Your task to perform on an android device: Search for sushi restaurants on Maps Image 0: 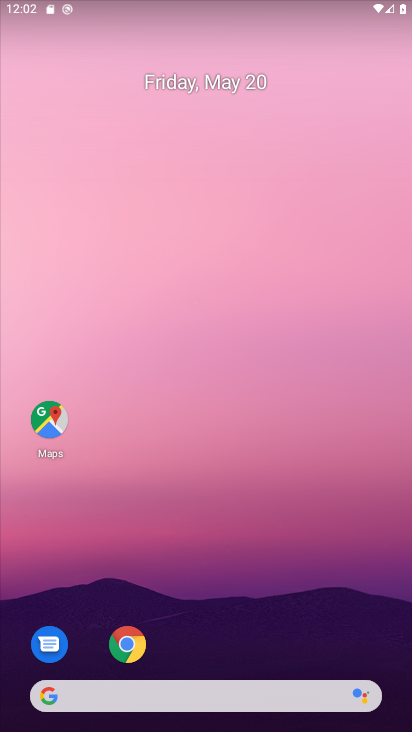
Step 0: click (45, 398)
Your task to perform on an android device: Search for sushi restaurants on Maps Image 1: 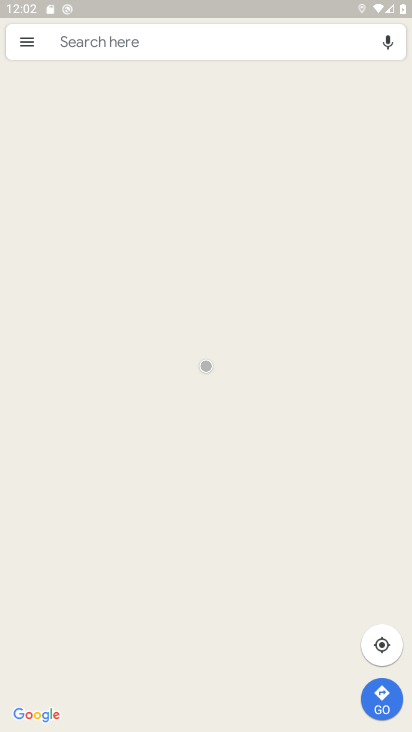
Step 1: click (220, 35)
Your task to perform on an android device: Search for sushi restaurants on Maps Image 2: 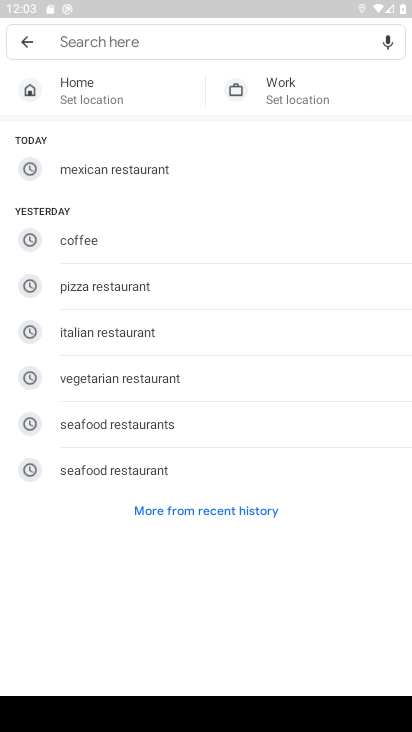
Step 2: click (136, 30)
Your task to perform on an android device: Search for sushi restaurants on Maps Image 3: 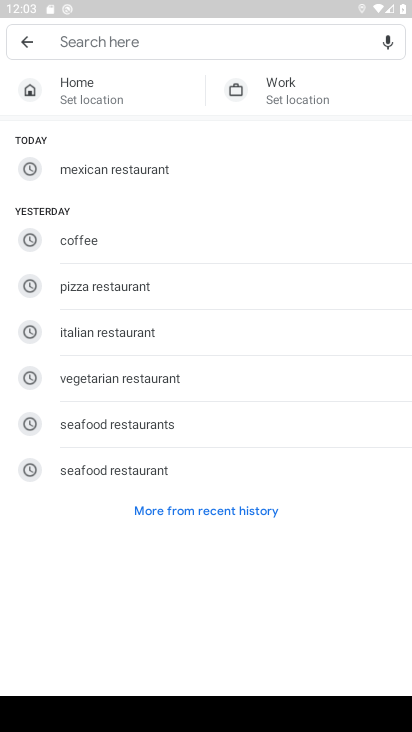
Step 3: click (207, 513)
Your task to perform on an android device: Search for sushi restaurants on Maps Image 4: 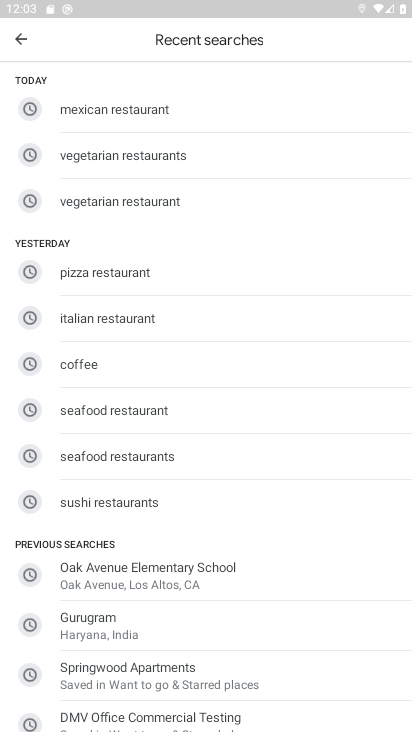
Step 4: click (116, 501)
Your task to perform on an android device: Search for sushi restaurants on Maps Image 5: 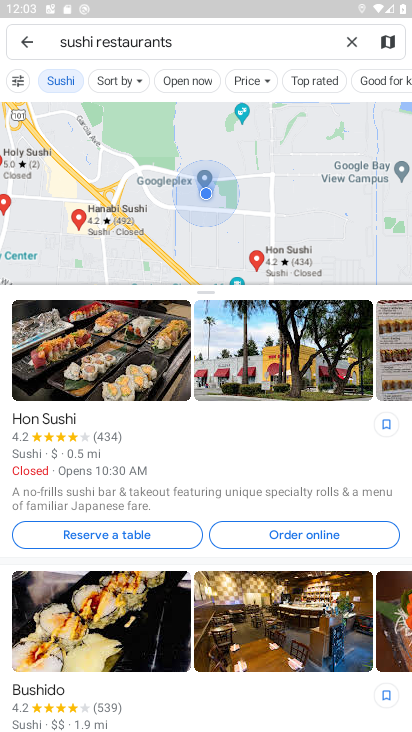
Step 5: task complete